Your task to perform on an android device: Go to Android settings Image 0: 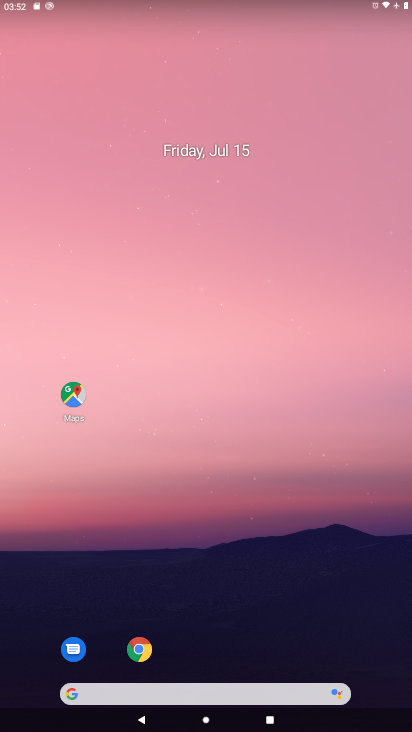
Step 0: drag from (366, 601) to (341, 113)
Your task to perform on an android device: Go to Android settings Image 1: 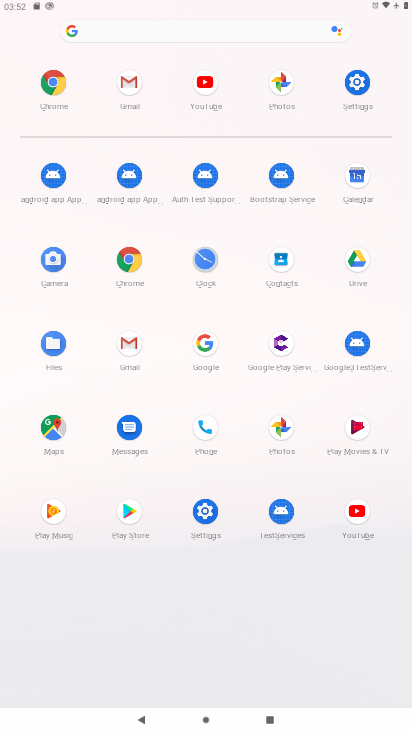
Step 1: click (204, 506)
Your task to perform on an android device: Go to Android settings Image 2: 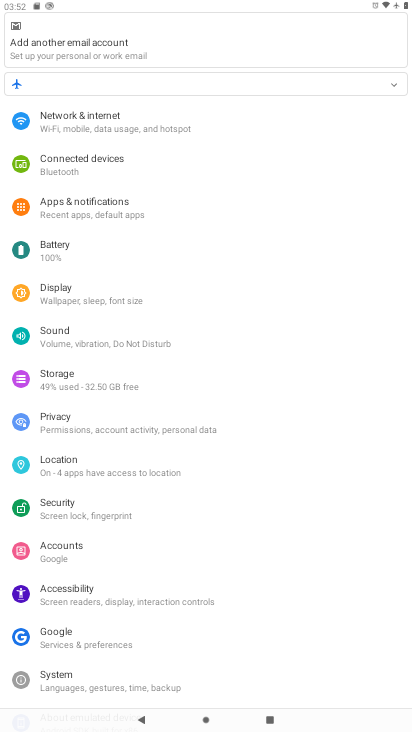
Step 2: drag from (266, 665) to (263, 250)
Your task to perform on an android device: Go to Android settings Image 3: 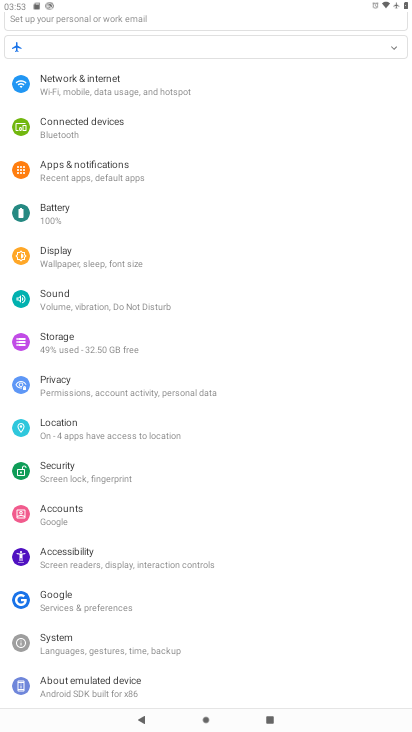
Step 3: click (57, 681)
Your task to perform on an android device: Go to Android settings Image 4: 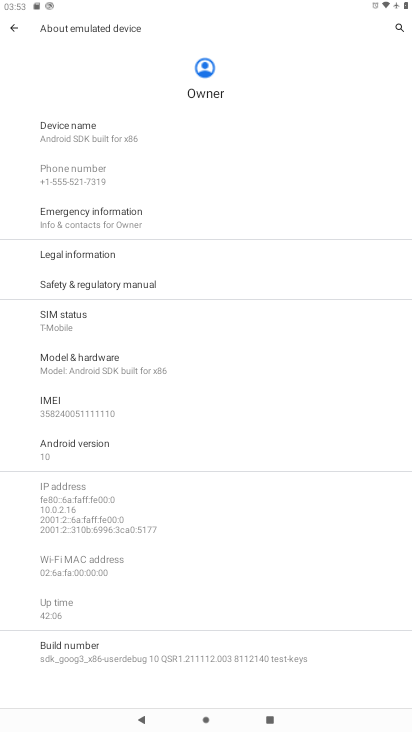
Step 4: task complete